Your task to perform on an android device: set the timer Image 0: 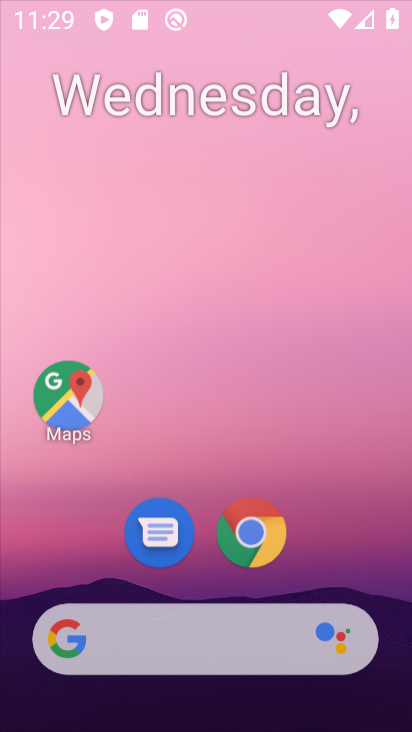
Step 0: click (272, 56)
Your task to perform on an android device: set the timer Image 1: 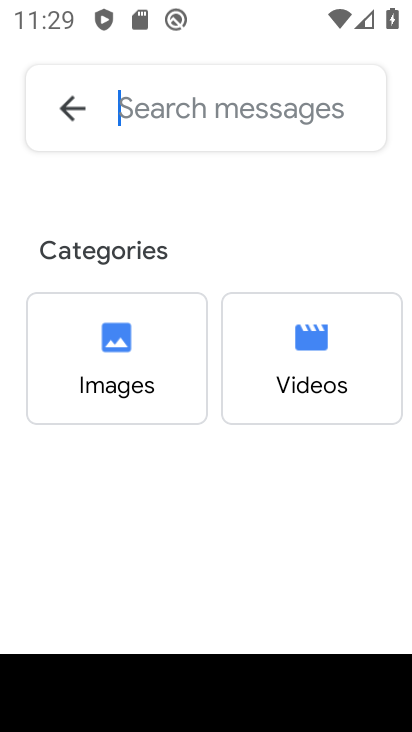
Step 1: click (66, 118)
Your task to perform on an android device: set the timer Image 2: 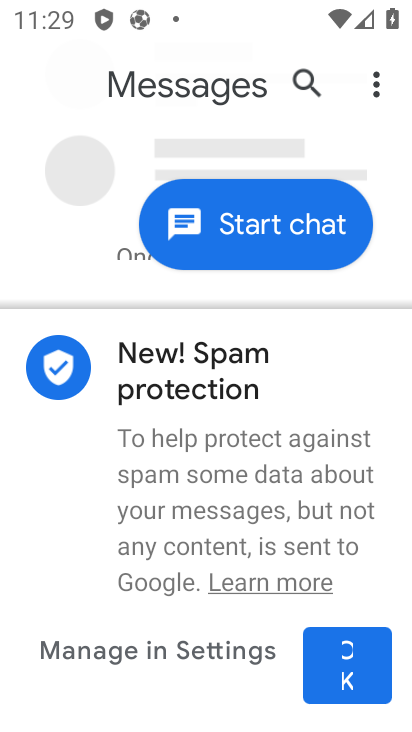
Step 2: press back button
Your task to perform on an android device: set the timer Image 3: 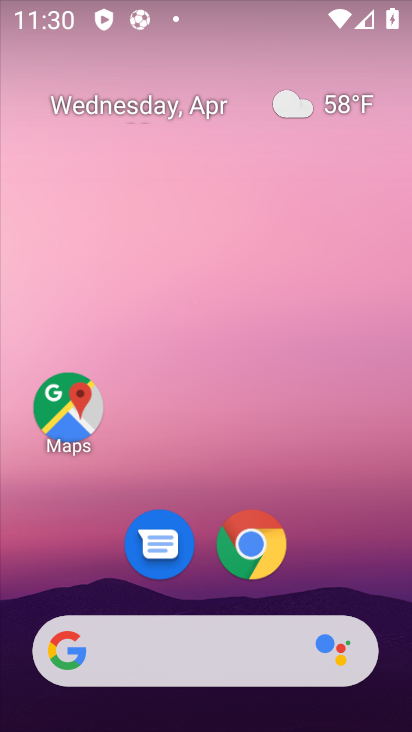
Step 3: drag from (330, 573) to (241, 91)
Your task to perform on an android device: set the timer Image 4: 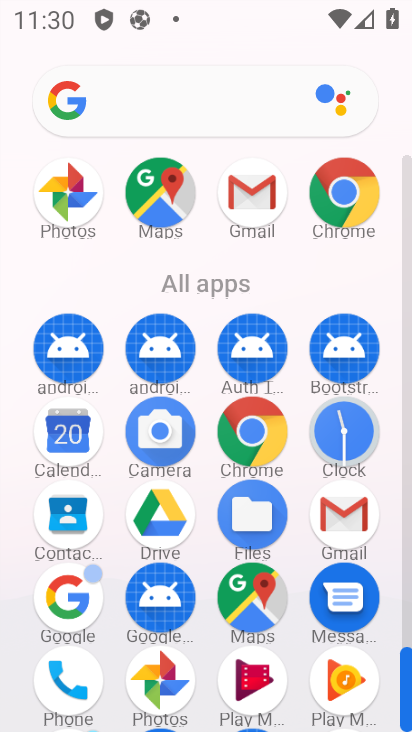
Step 4: click (340, 434)
Your task to perform on an android device: set the timer Image 5: 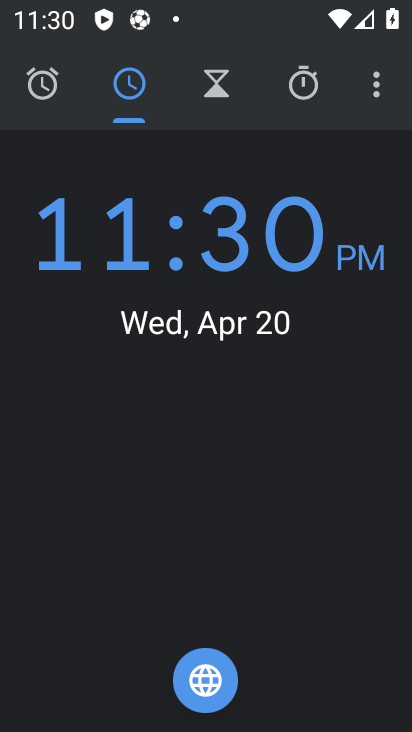
Step 5: click (379, 85)
Your task to perform on an android device: set the timer Image 6: 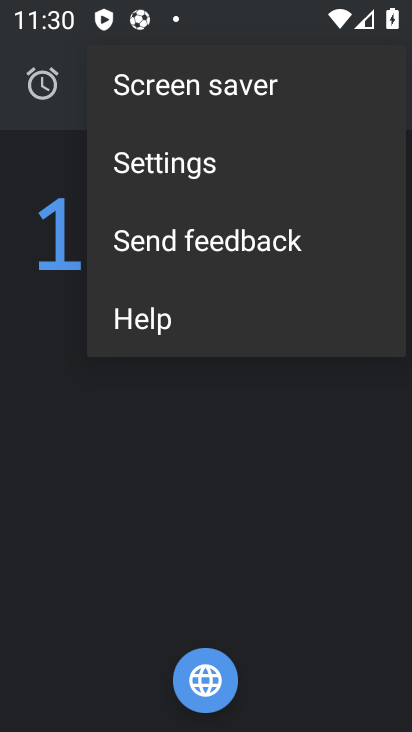
Step 6: click (266, 505)
Your task to perform on an android device: set the timer Image 7: 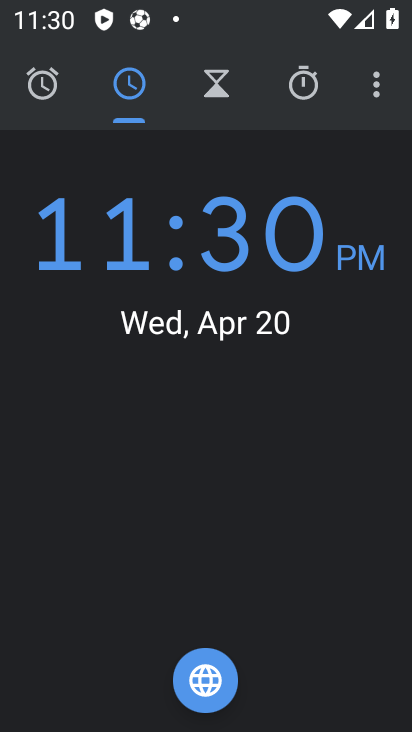
Step 7: click (215, 95)
Your task to perform on an android device: set the timer Image 8: 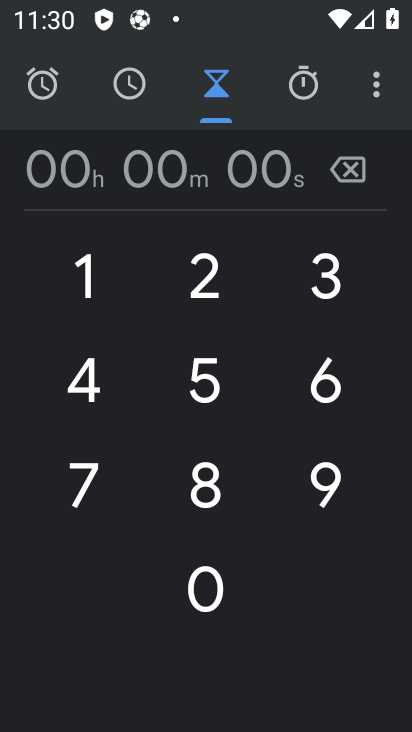
Step 8: click (189, 279)
Your task to perform on an android device: set the timer Image 9: 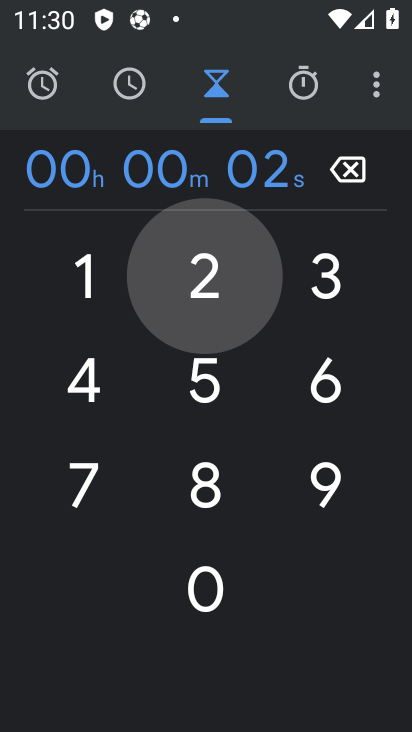
Step 9: click (208, 595)
Your task to perform on an android device: set the timer Image 10: 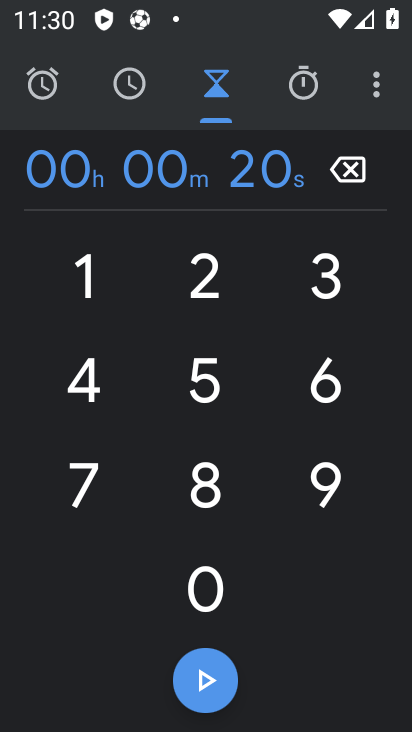
Step 10: click (209, 594)
Your task to perform on an android device: set the timer Image 11: 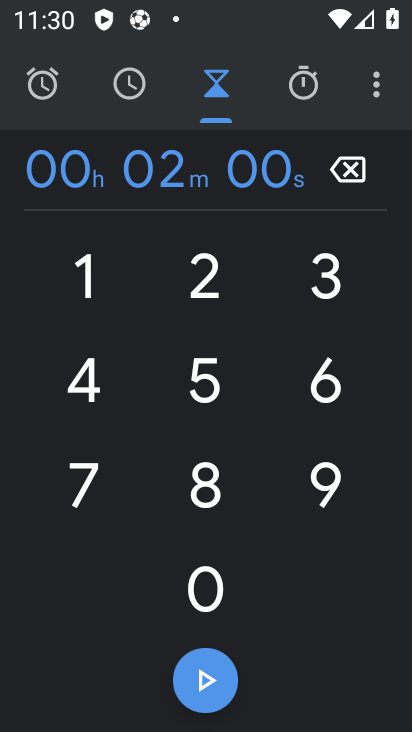
Step 11: click (208, 701)
Your task to perform on an android device: set the timer Image 12: 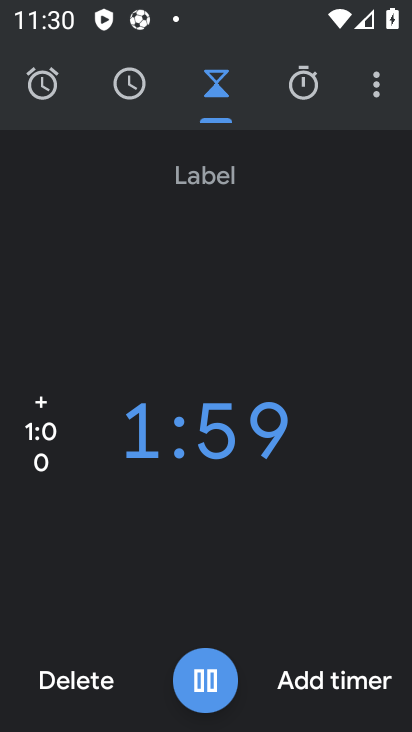
Step 12: click (330, 688)
Your task to perform on an android device: set the timer Image 13: 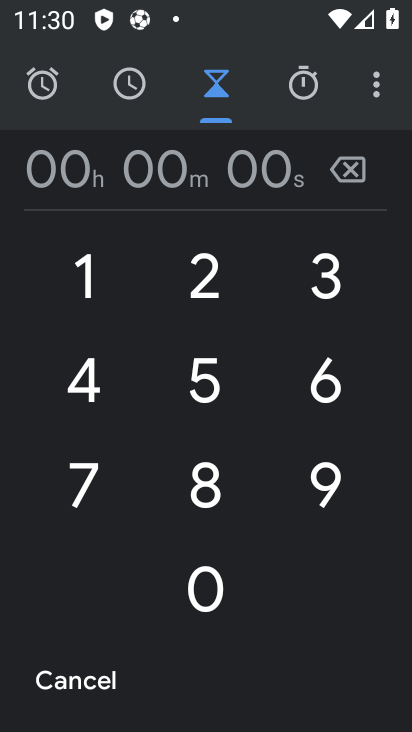
Step 13: task complete